Your task to perform on an android device: turn on bluetooth scan Image 0: 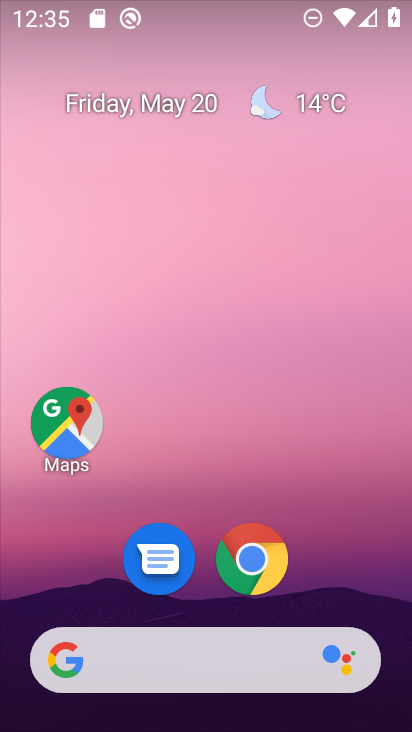
Step 0: drag from (331, 600) to (348, 129)
Your task to perform on an android device: turn on bluetooth scan Image 1: 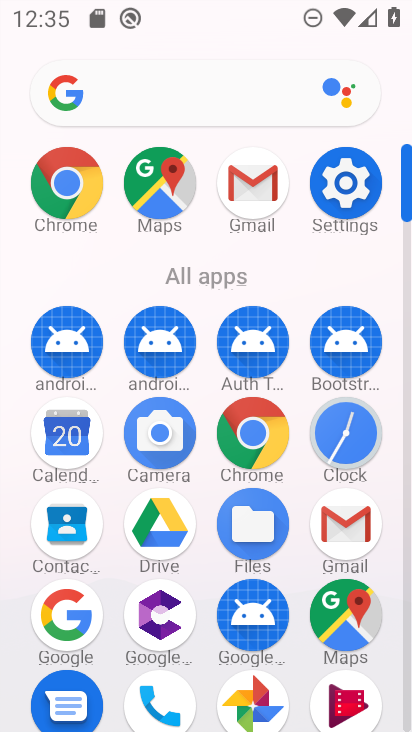
Step 1: click (363, 186)
Your task to perform on an android device: turn on bluetooth scan Image 2: 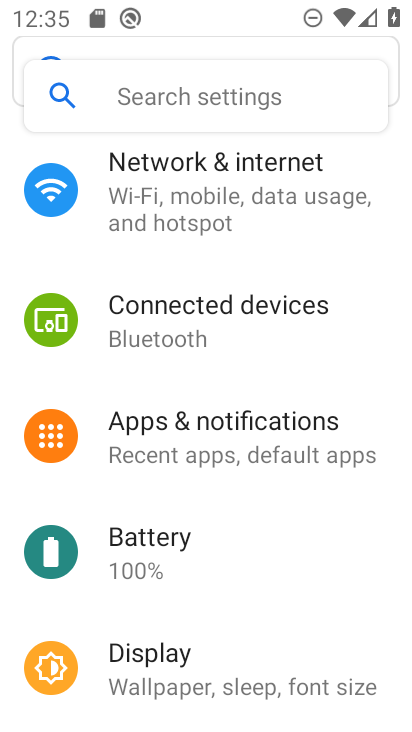
Step 2: drag from (251, 576) to (237, 393)
Your task to perform on an android device: turn on bluetooth scan Image 3: 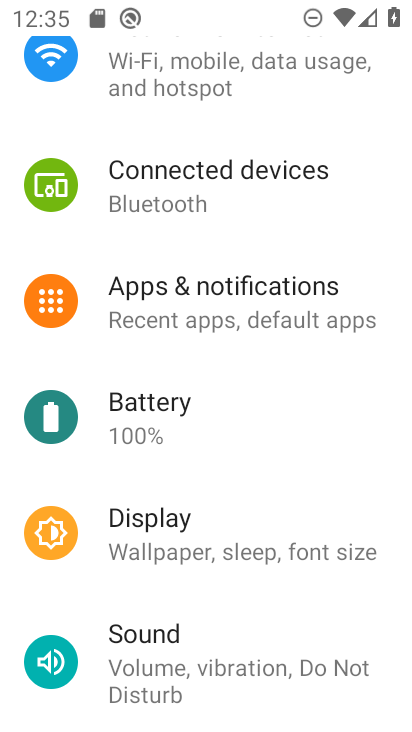
Step 3: click (237, 393)
Your task to perform on an android device: turn on bluetooth scan Image 4: 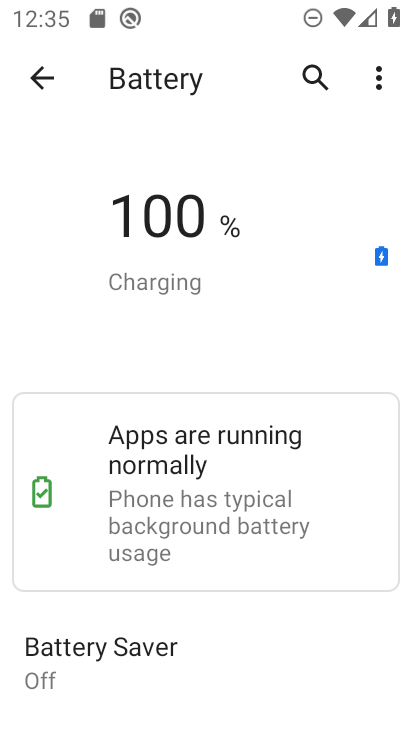
Step 4: click (78, 100)
Your task to perform on an android device: turn on bluetooth scan Image 5: 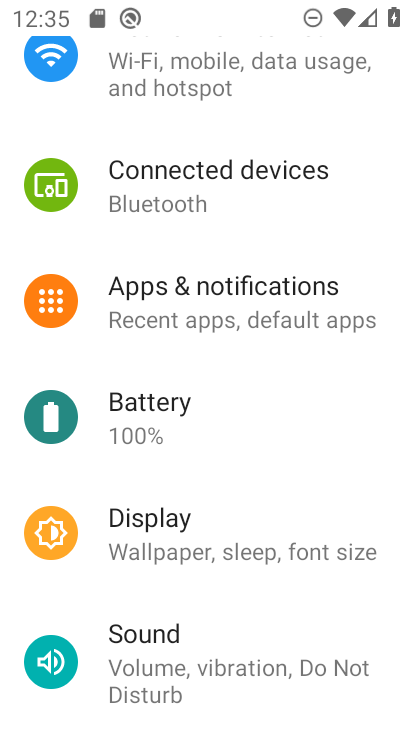
Step 5: click (84, 127)
Your task to perform on an android device: turn on bluetooth scan Image 6: 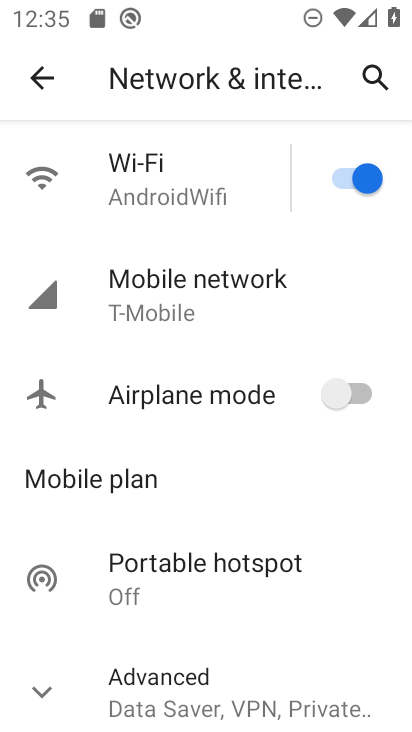
Step 6: click (59, 90)
Your task to perform on an android device: turn on bluetooth scan Image 7: 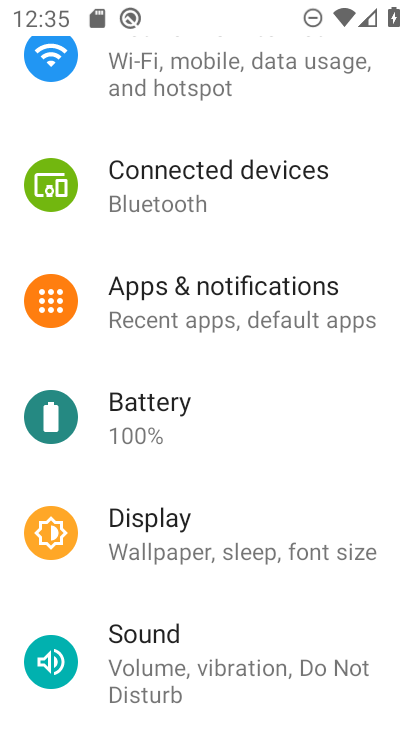
Step 7: drag from (160, 608) to (147, 65)
Your task to perform on an android device: turn on bluetooth scan Image 8: 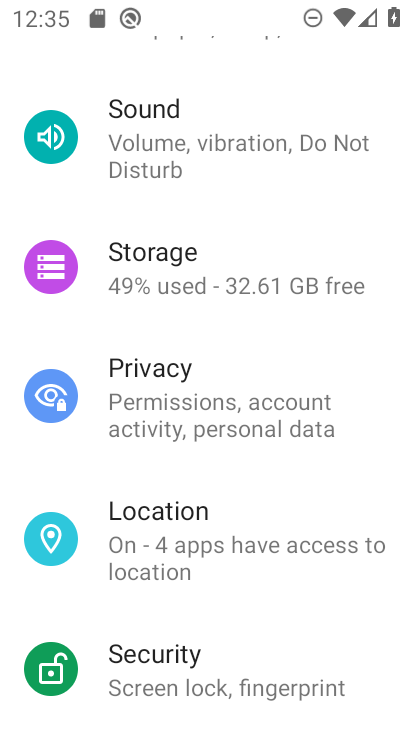
Step 8: click (185, 590)
Your task to perform on an android device: turn on bluetooth scan Image 9: 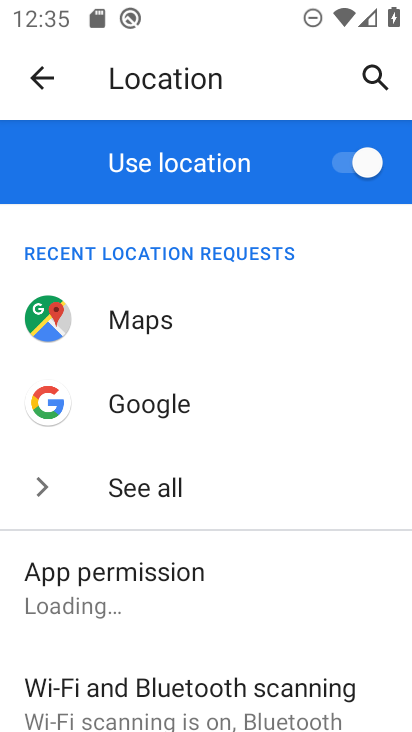
Step 9: drag from (188, 586) to (175, 436)
Your task to perform on an android device: turn on bluetooth scan Image 10: 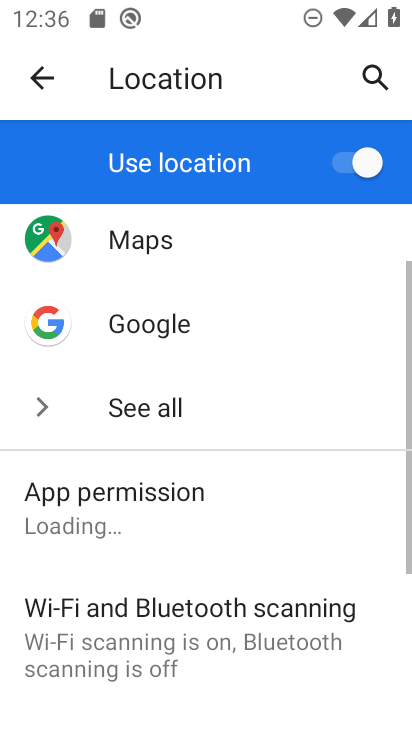
Step 10: drag from (175, 436) to (175, 379)
Your task to perform on an android device: turn on bluetooth scan Image 11: 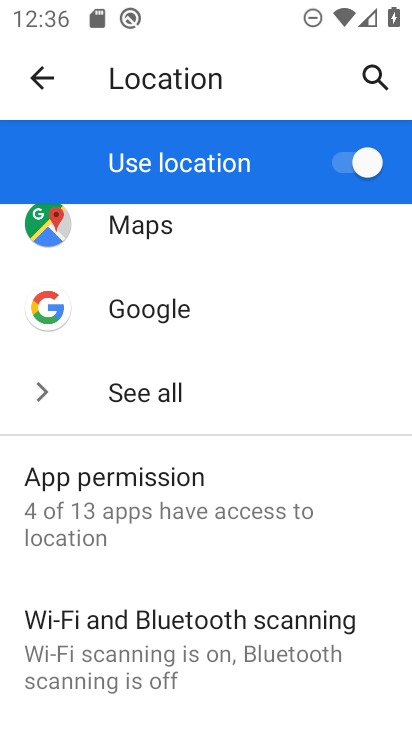
Step 11: click (175, 379)
Your task to perform on an android device: turn on bluetooth scan Image 12: 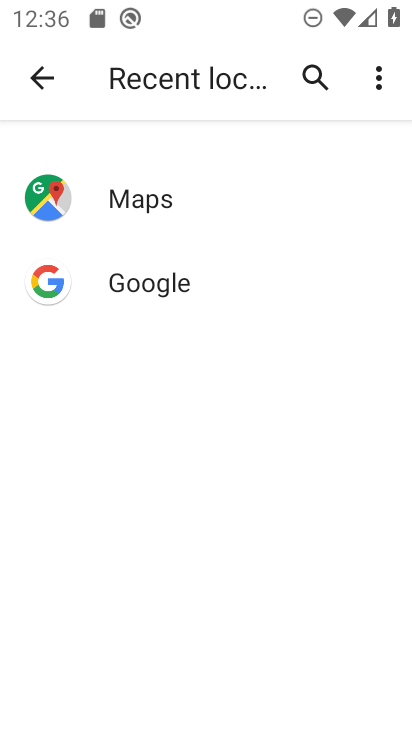
Step 12: task complete